Your task to perform on an android device: Open the calendar app, open the side menu, and click the "Day" option Image 0: 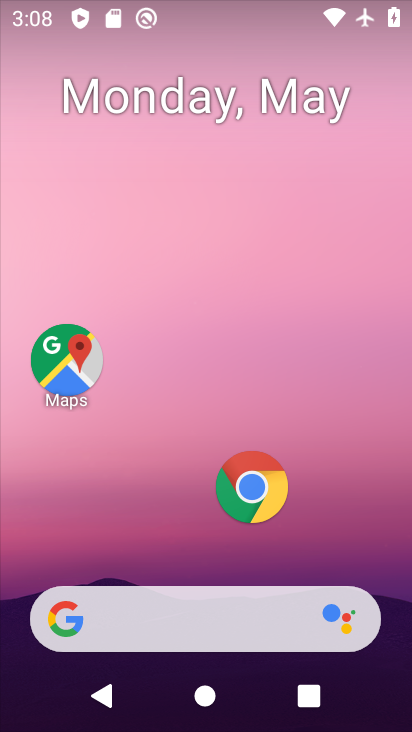
Step 0: drag from (220, 565) to (218, 53)
Your task to perform on an android device: Open the calendar app, open the side menu, and click the "Day" option Image 1: 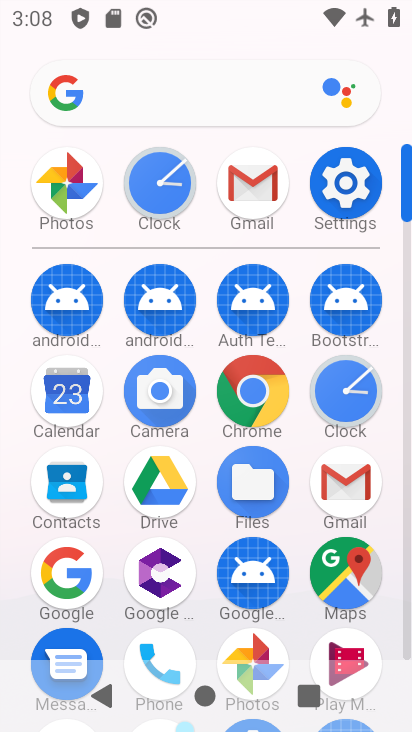
Step 1: click (74, 401)
Your task to perform on an android device: Open the calendar app, open the side menu, and click the "Day" option Image 2: 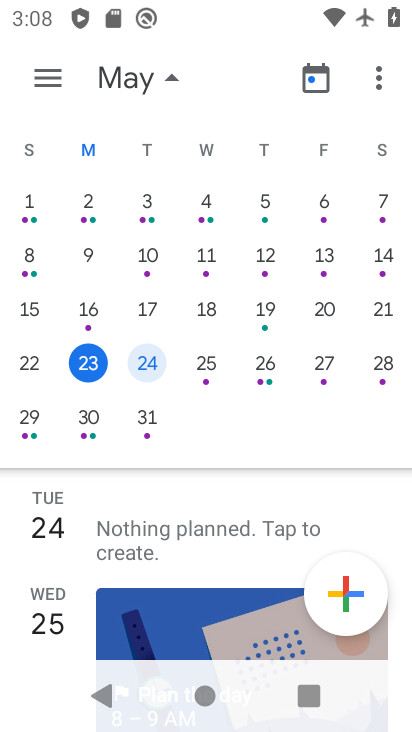
Step 2: click (54, 77)
Your task to perform on an android device: Open the calendar app, open the side menu, and click the "Day" option Image 3: 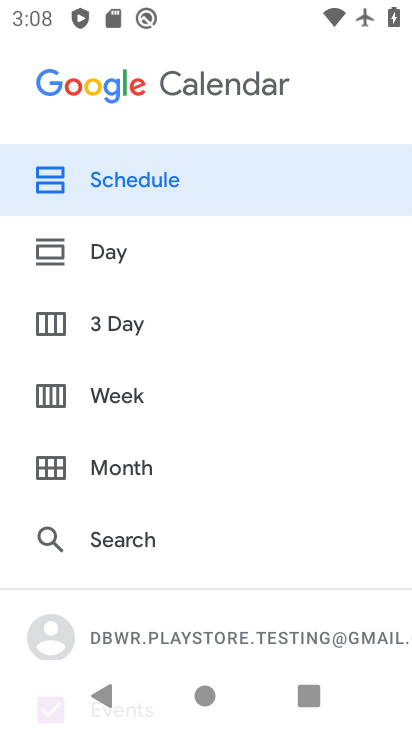
Step 3: click (116, 262)
Your task to perform on an android device: Open the calendar app, open the side menu, and click the "Day" option Image 4: 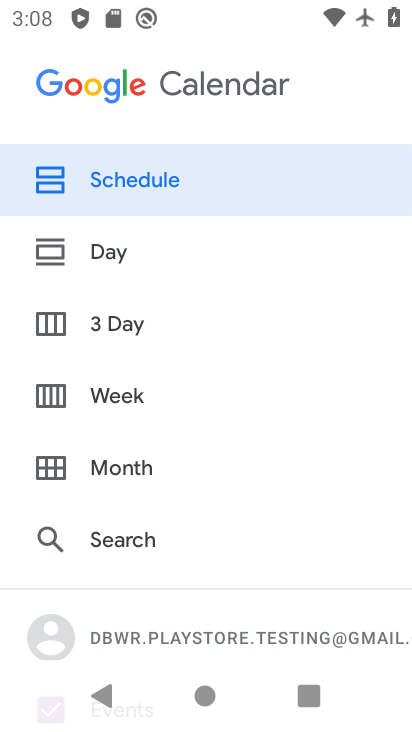
Step 4: click (165, 253)
Your task to perform on an android device: Open the calendar app, open the side menu, and click the "Day" option Image 5: 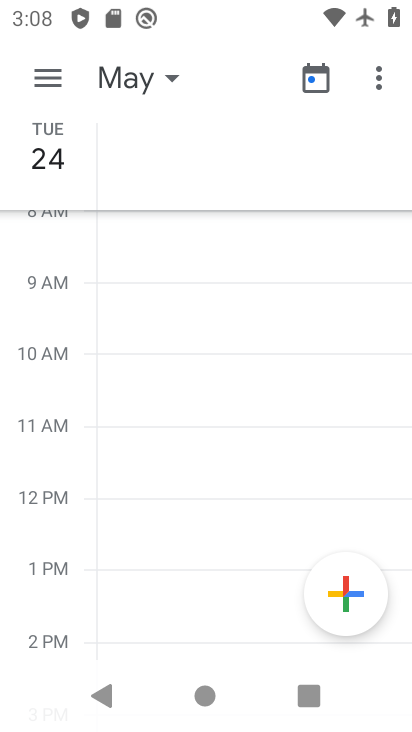
Step 5: task complete